Your task to perform on an android device: open app "PlayWell" (install if not already installed) and go to login screen Image 0: 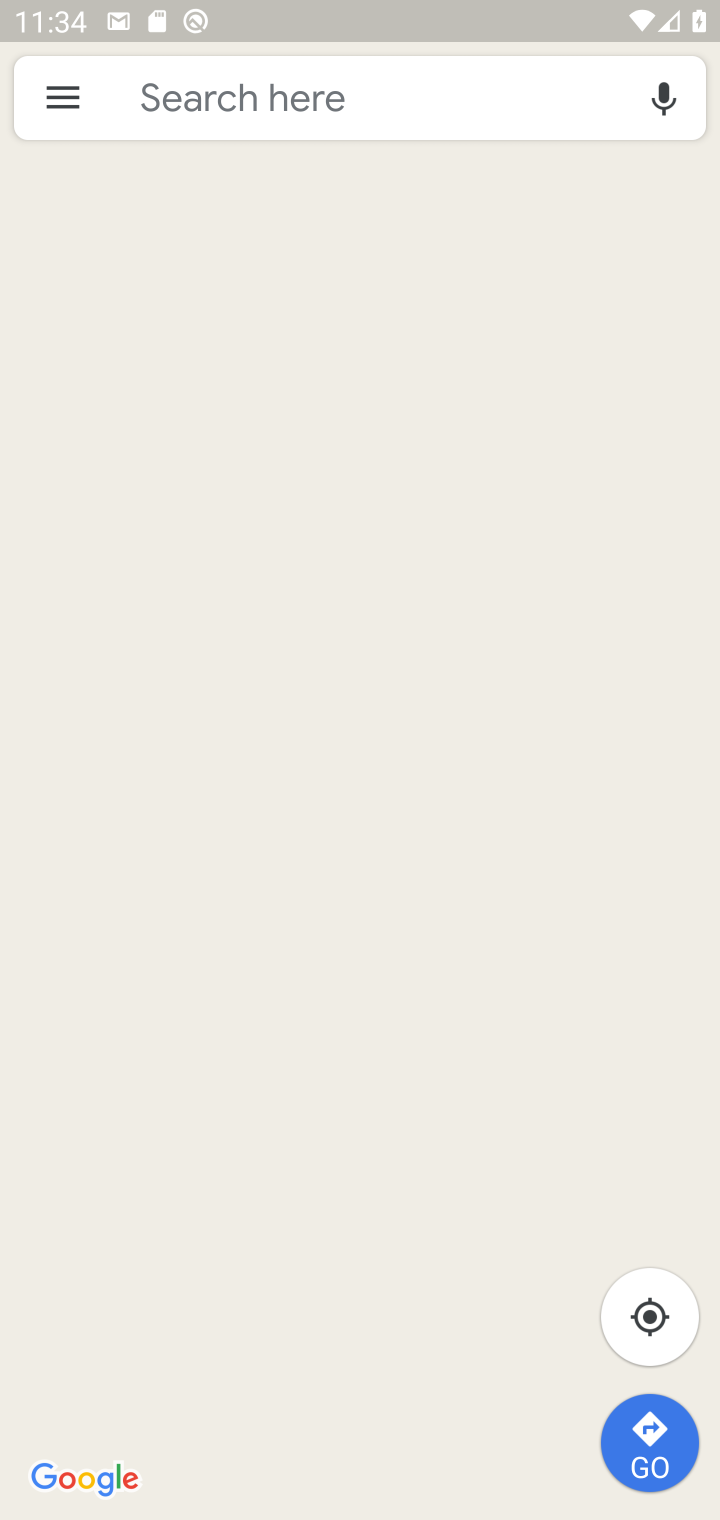
Step 0: drag from (358, 981) to (328, 383)
Your task to perform on an android device: open app "PlayWell" (install if not already installed) and go to login screen Image 1: 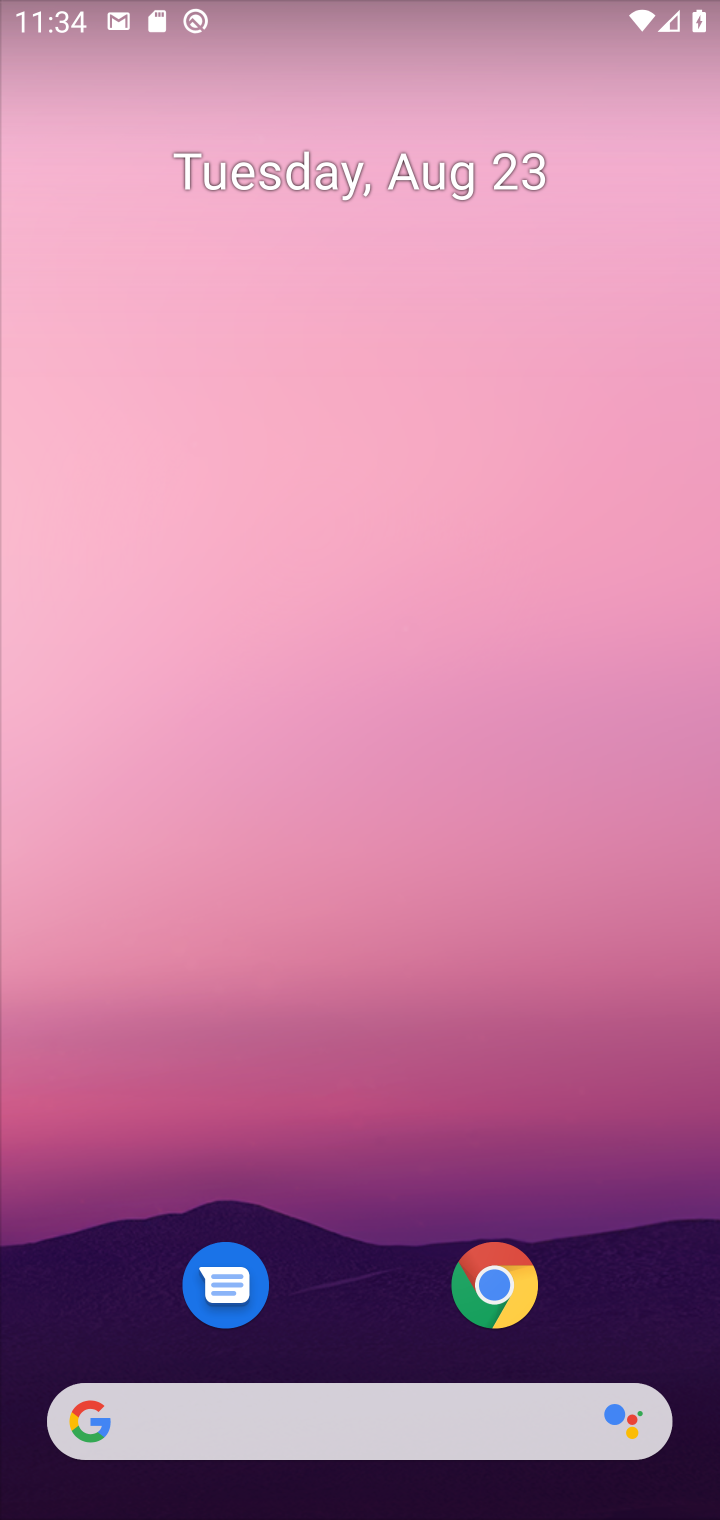
Step 1: press home button
Your task to perform on an android device: open app "PlayWell" (install if not already installed) and go to login screen Image 2: 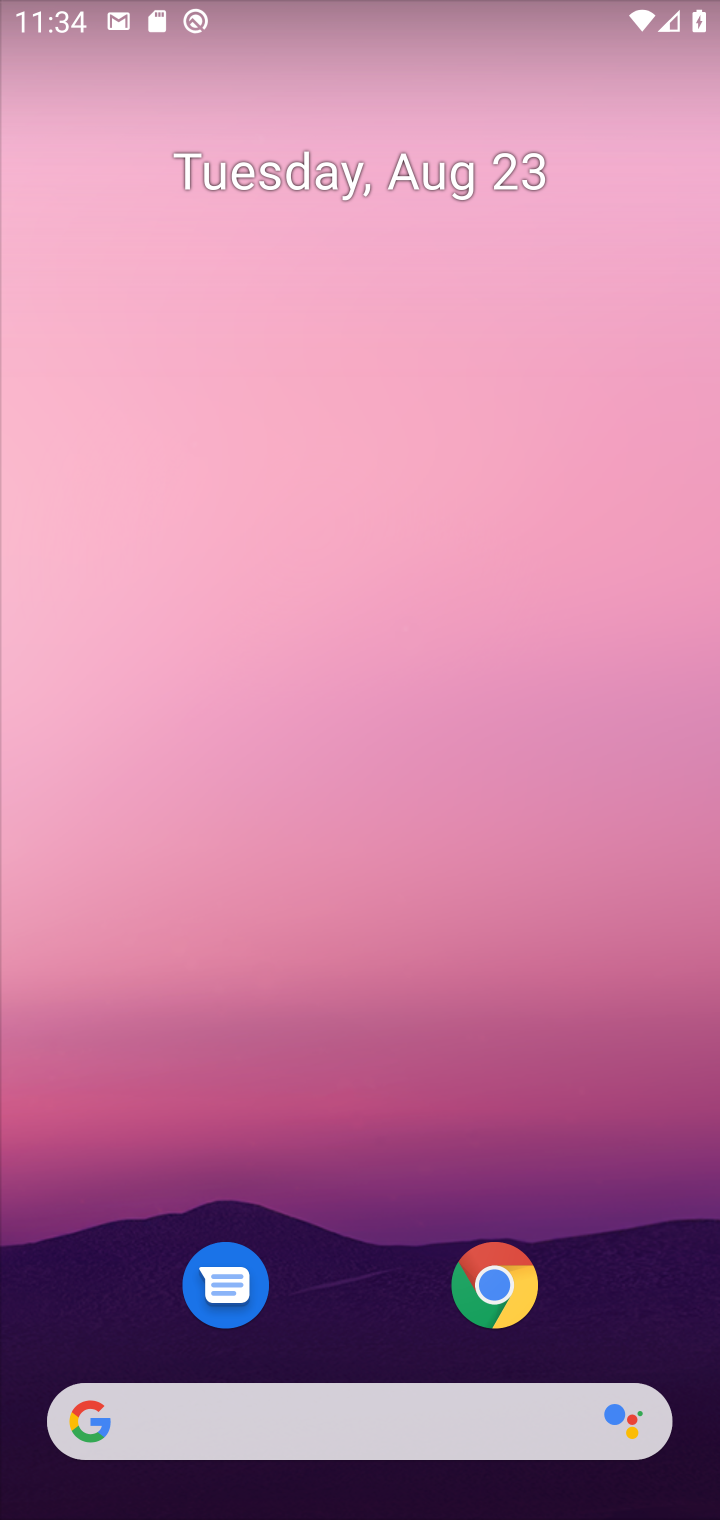
Step 2: drag from (290, 399) to (292, 52)
Your task to perform on an android device: open app "PlayWell" (install if not already installed) and go to login screen Image 3: 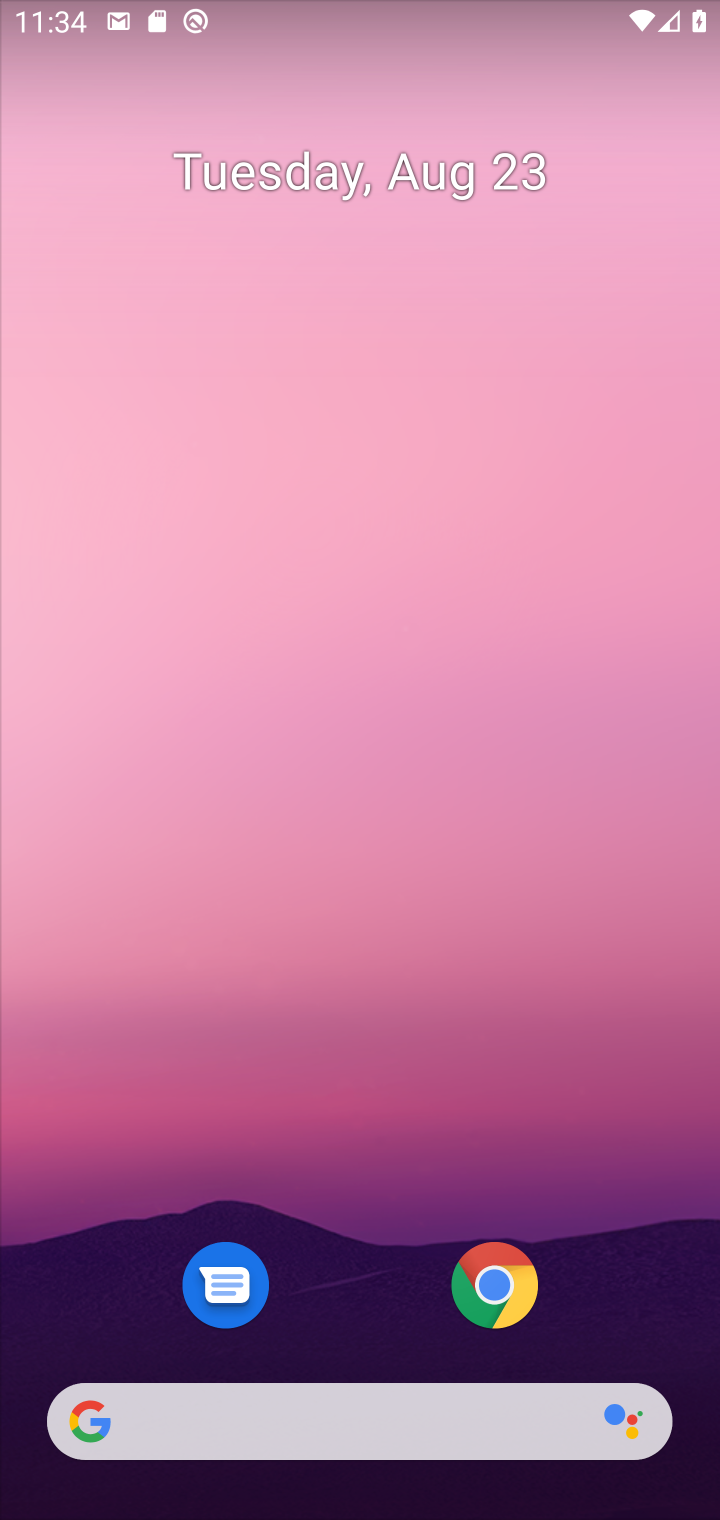
Step 3: drag from (359, 1328) to (351, 170)
Your task to perform on an android device: open app "PlayWell" (install if not already installed) and go to login screen Image 4: 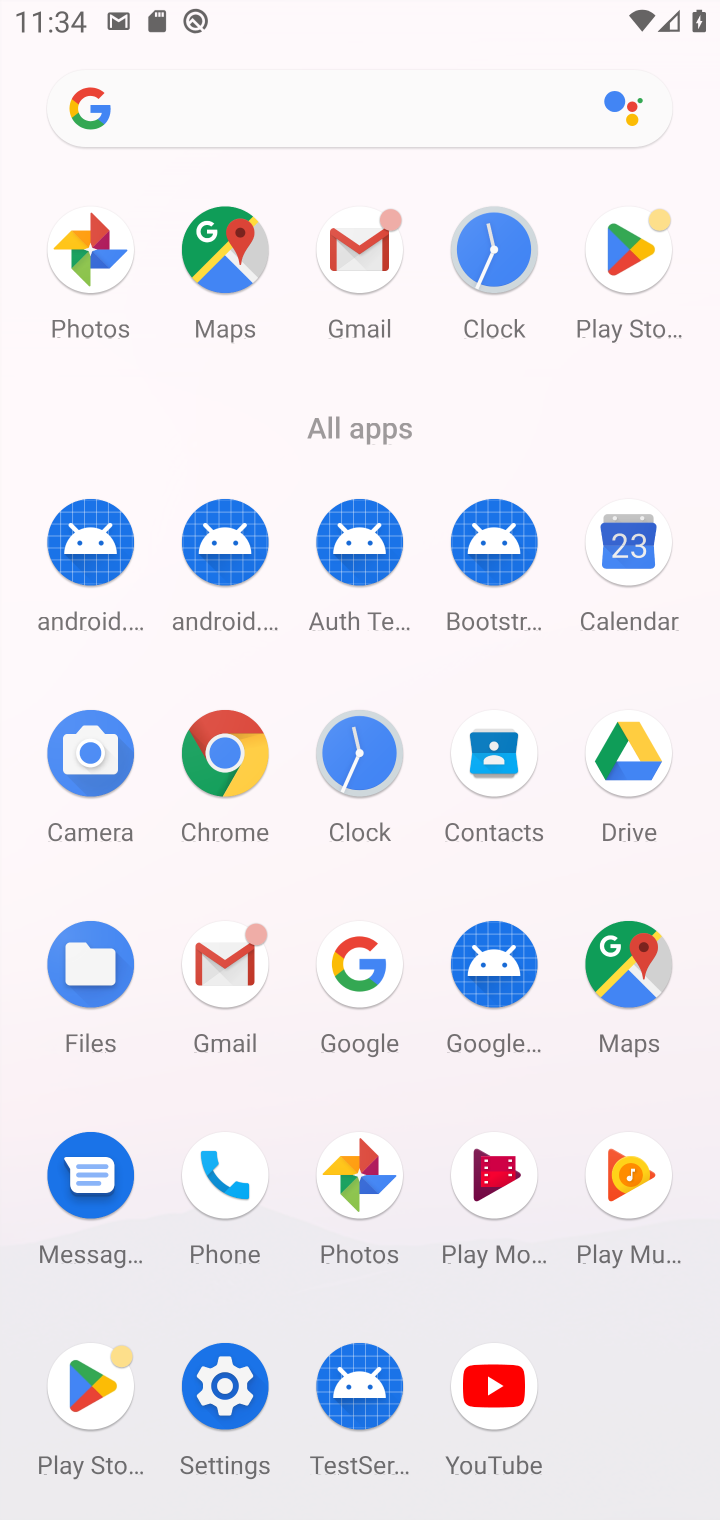
Step 4: click (638, 256)
Your task to perform on an android device: open app "PlayWell" (install if not already installed) and go to login screen Image 5: 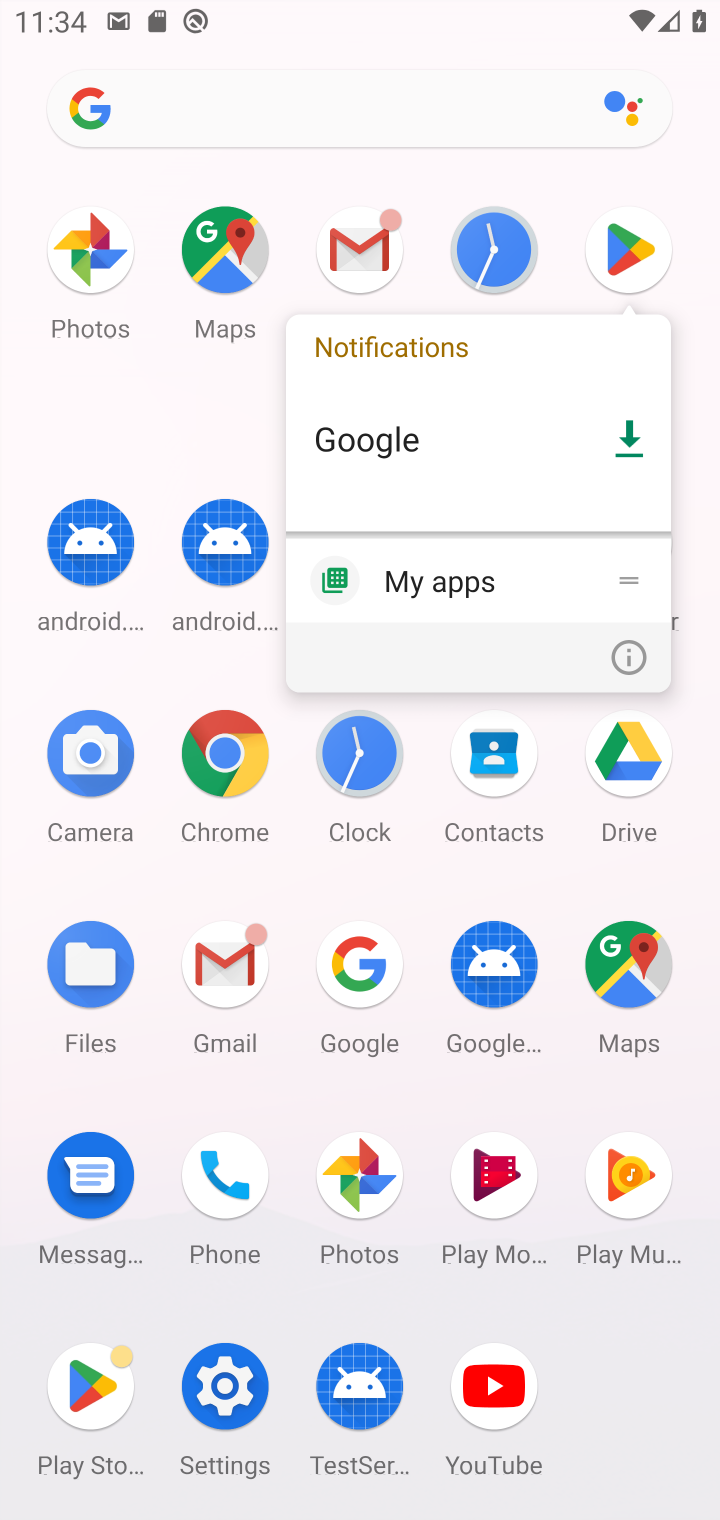
Step 5: click (625, 257)
Your task to perform on an android device: open app "PlayWell" (install if not already installed) and go to login screen Image 6: 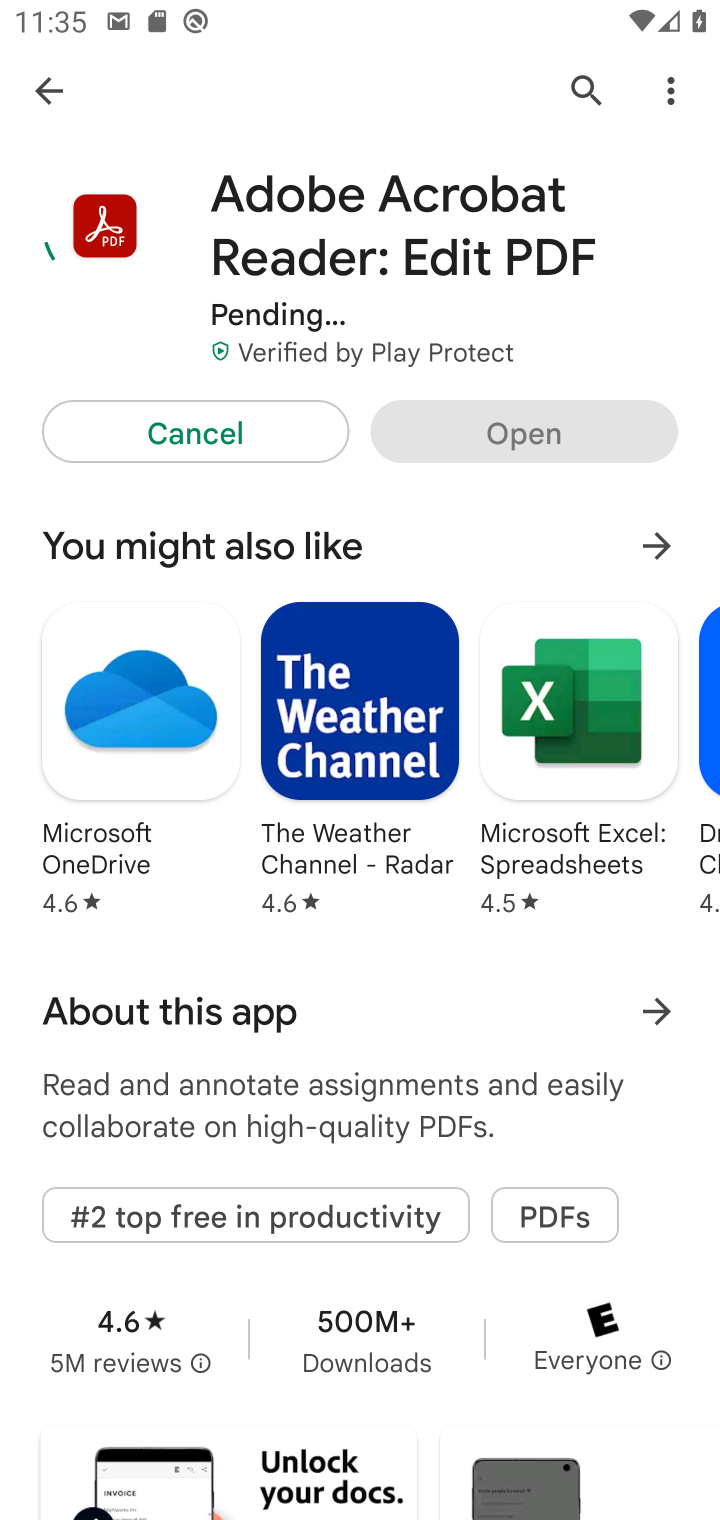
Step 6: click (579, 76)
Your task to perform on an android device: open app "PlayWell" (install if not already installed) and go to login screen Image 7: 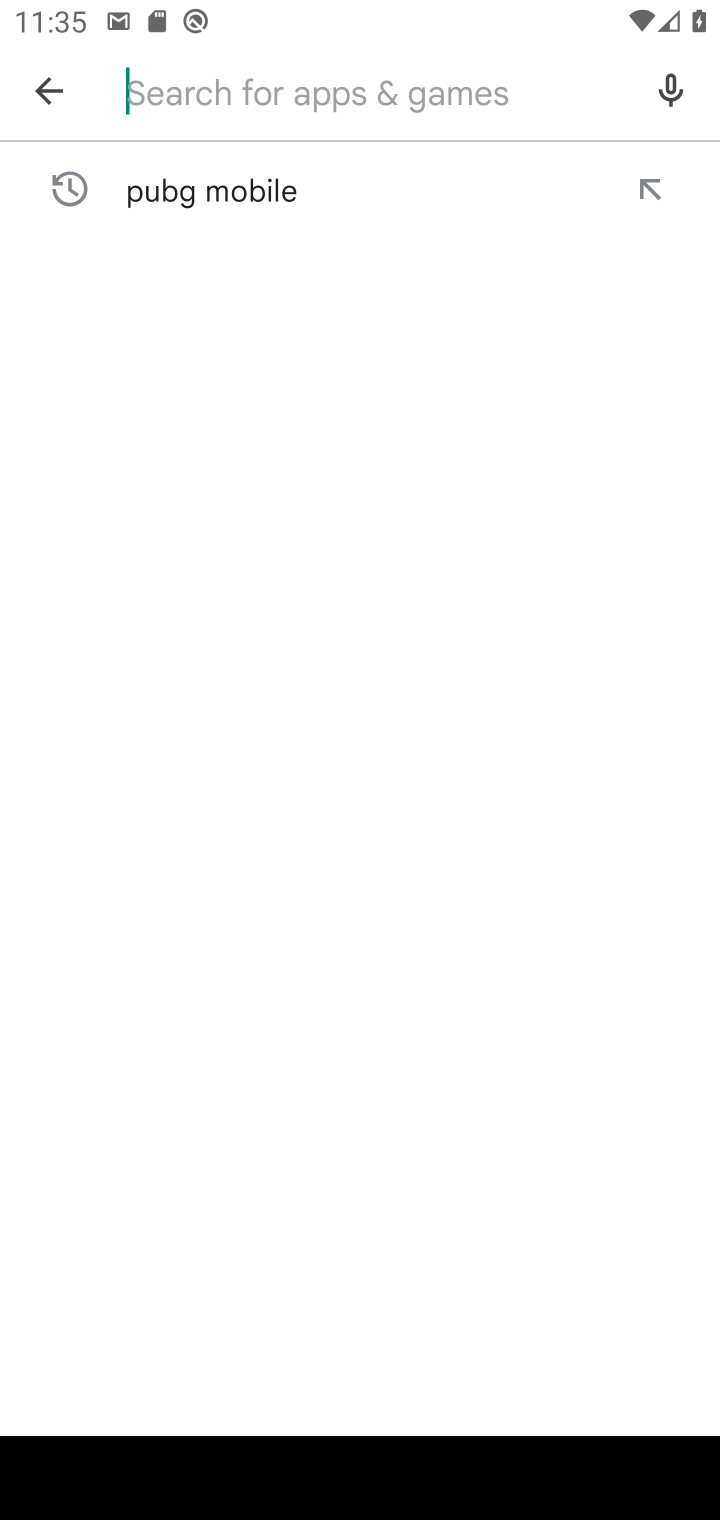
Step 7: type "PlayWell"
Your task to perform on an android device: open app "PlayWell" (install if not already installed) and go to login screen Image 8: 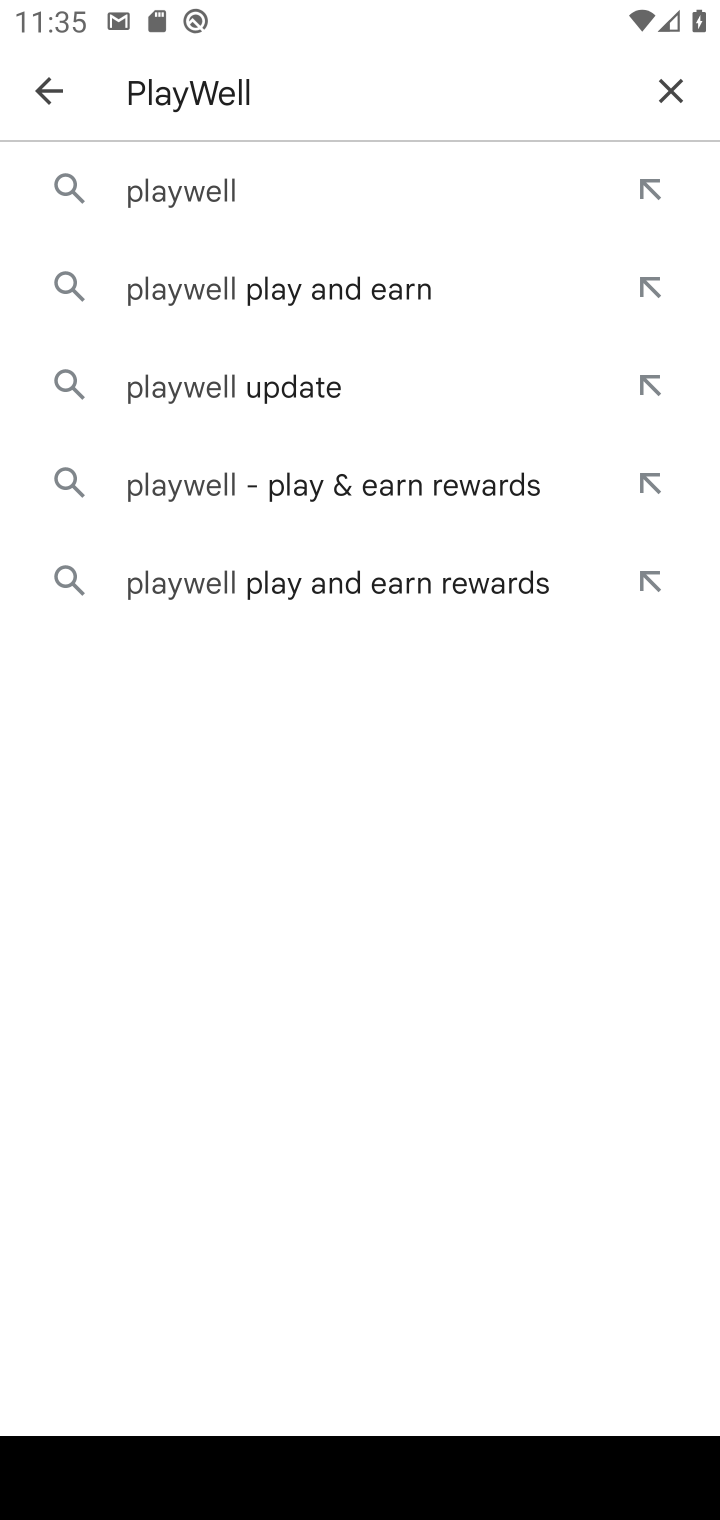
Step 8: click (197, 180)
Your task to perform on an android device: open app "PlayWell" (install if not already installed) and go to login screen Image 9: 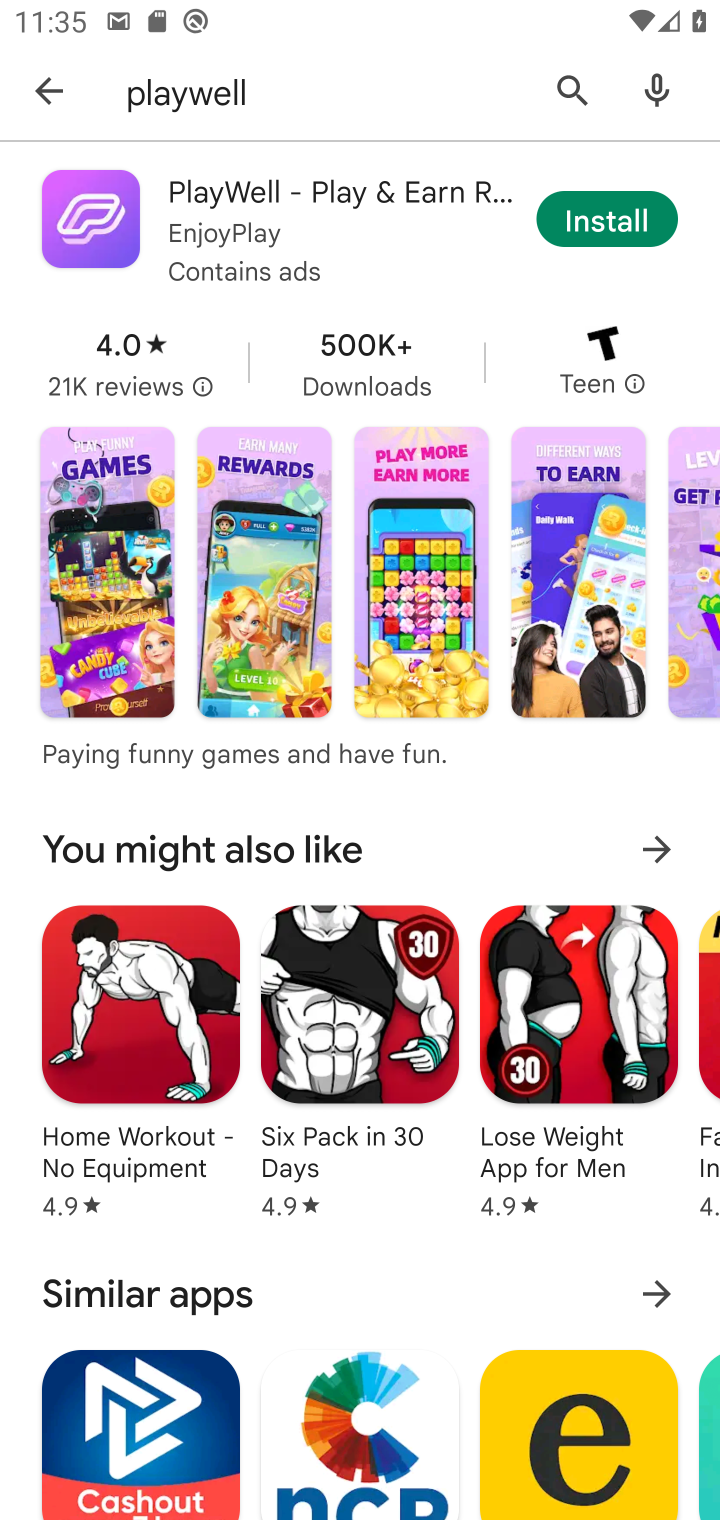
Step 9: click (603, 220)
Your task to perform on an android device: open app "PlayWell" (install if not already installed) and go to login screen Image 10: 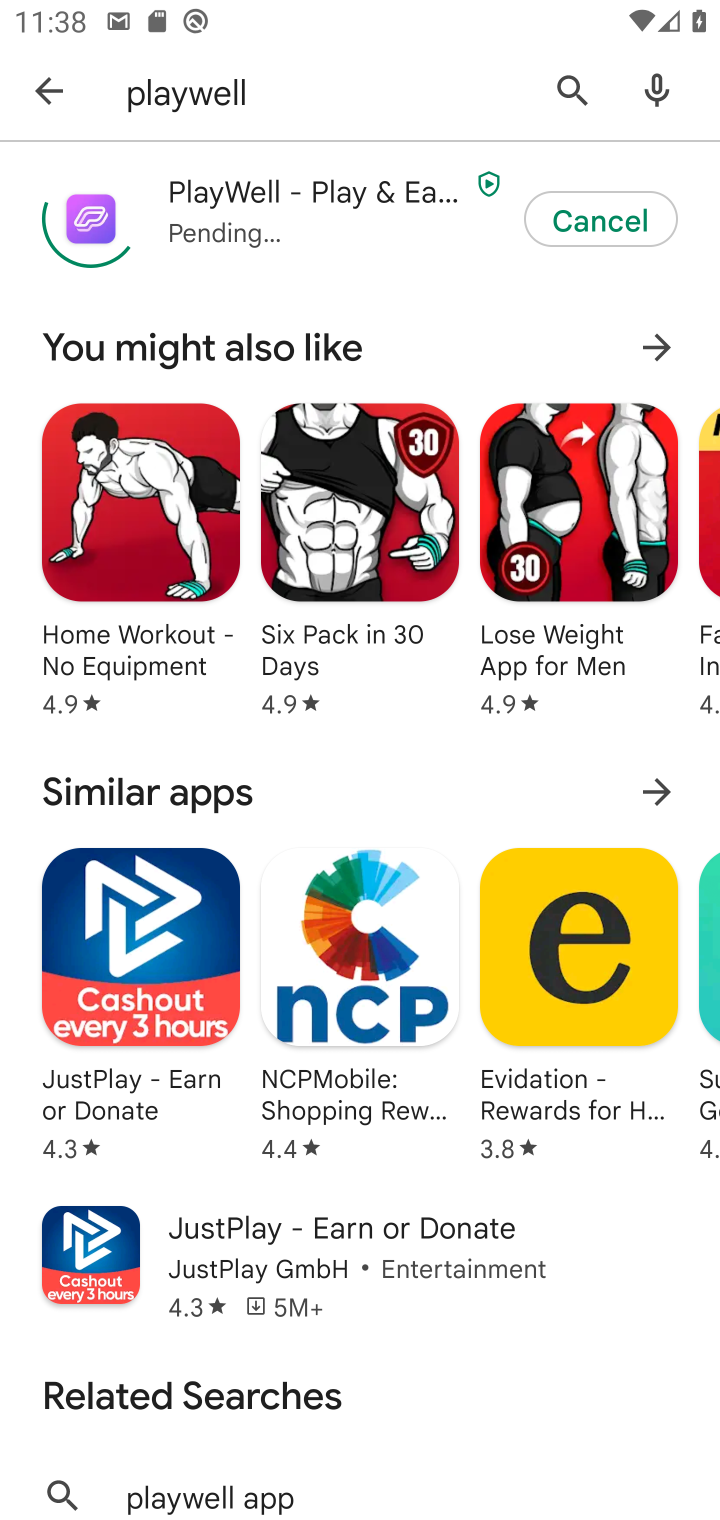
Step 10: task complete